Your task to perform on an android device: open chrome privacy settings Image 0: 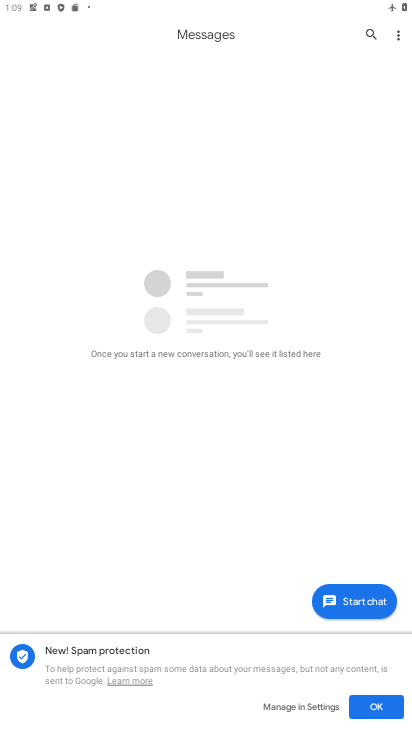
Step 0: press home button
Your task to perform on an android device: open chrome privacy settings Image 1: 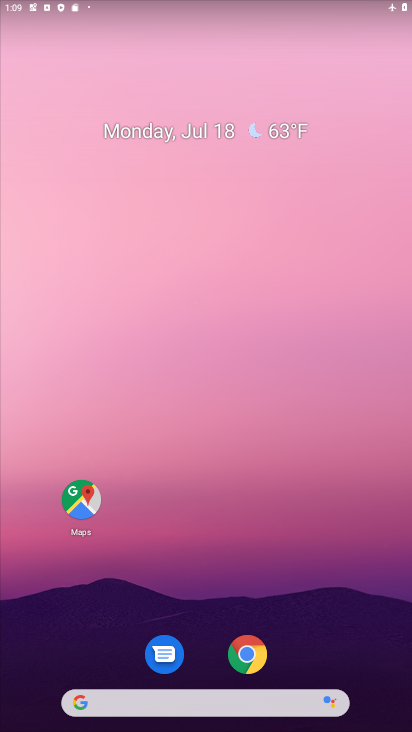
Step 1: click (244, 659)
Your task to perform on an android device: open chrome privacy settings Image 2: 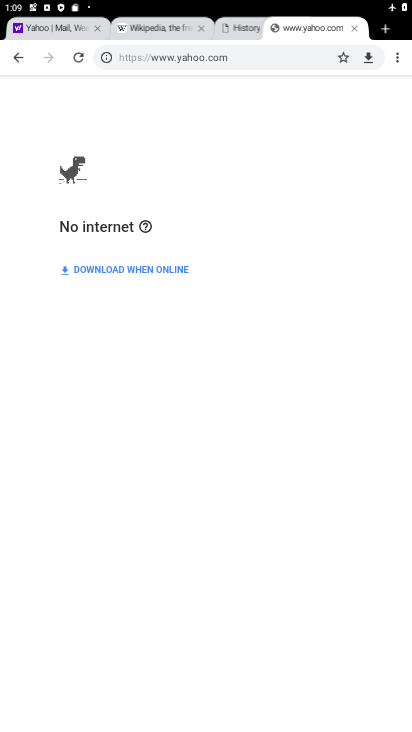
Step 2: click (404, 59)
Your task to perform on an android device: open chrome privacy settings Image 3: 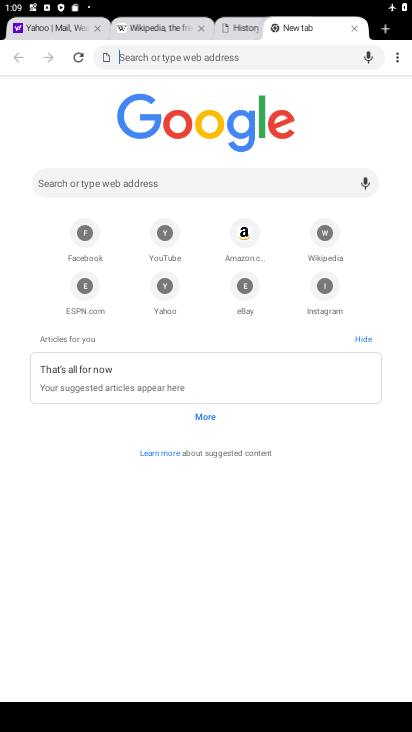
Step 3: click (404, 61)
Your task to perform on an android device: open chrome privacy settings Image 4: 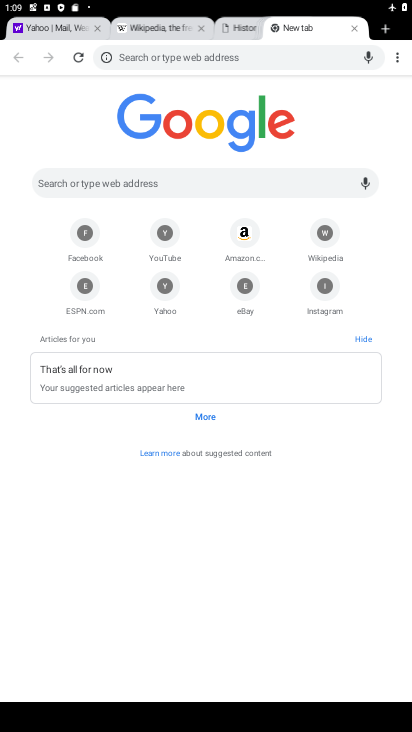
Step 4: drag from (404, 61) to (321, 271)
Your task to perform on an android device: open chrome privacy settings Image 5: 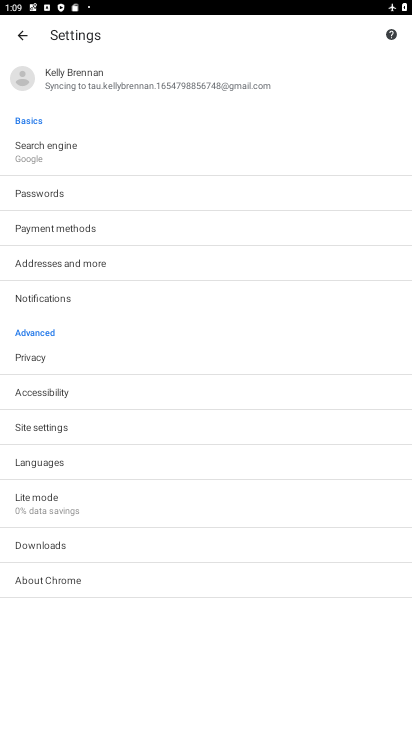
Step 5: click (83, 359)
Your task to perform on an android device: open chrome privacy settings Image 6: 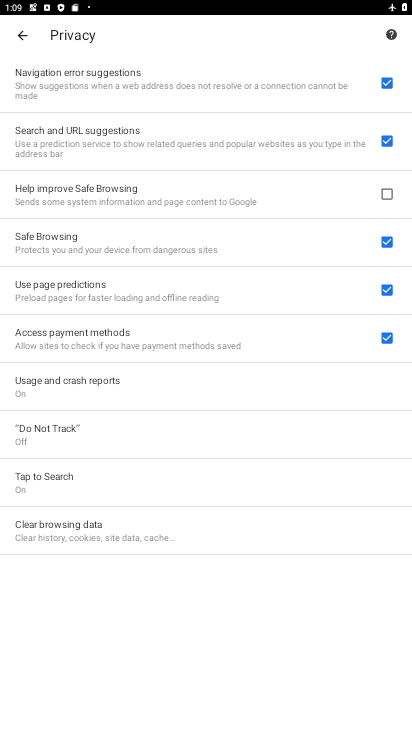
Step 6: task complete